Your task to perform on an android device: turn on the 24-hour format for clock Image 0: 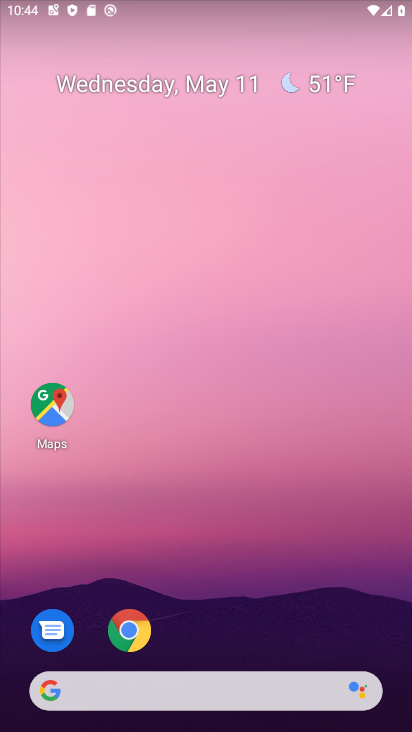
Step 0: drag from (220, 723) to (231, 38)
Your task to perform on an android device: turn on the 24-hour format for clock Image 1: 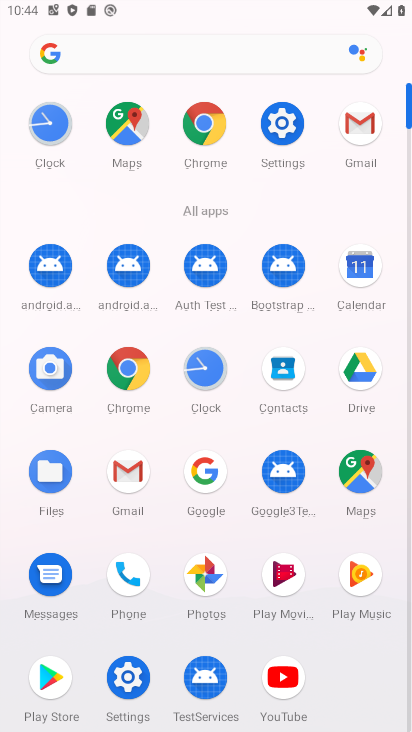
Step 1: click (206, 366)
Your task to perform on an android device: turn on the 24-hour format for clock Image 2: 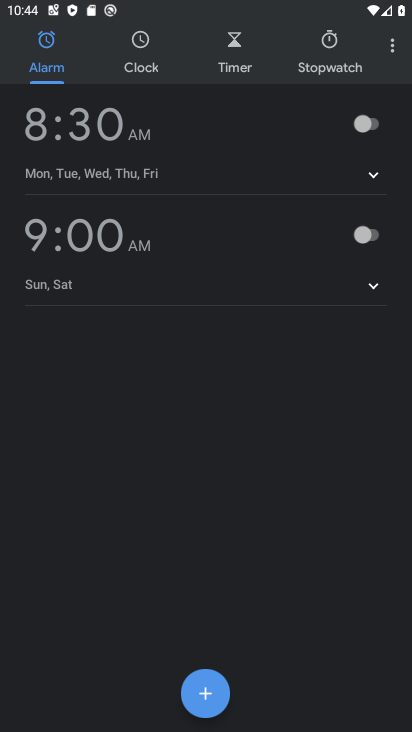
Step 2: click (393, 47)
Your task to perform on an android device: turn on the 24-hour format for clock Image 3: 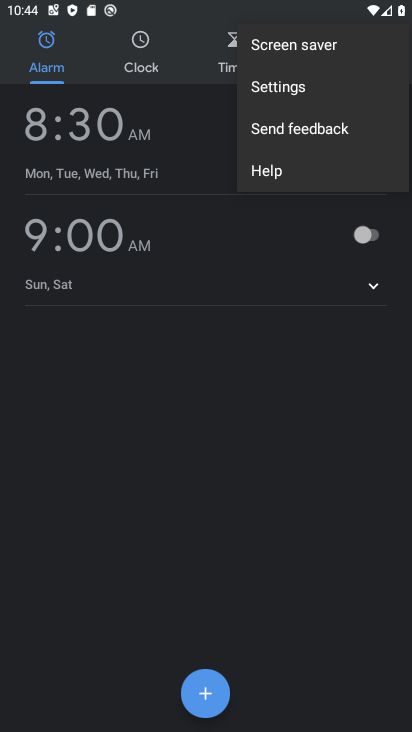
Step 3: click (278, 89)
Your task to perform on an android device: turn on the 24-hour format for clock Image 4: 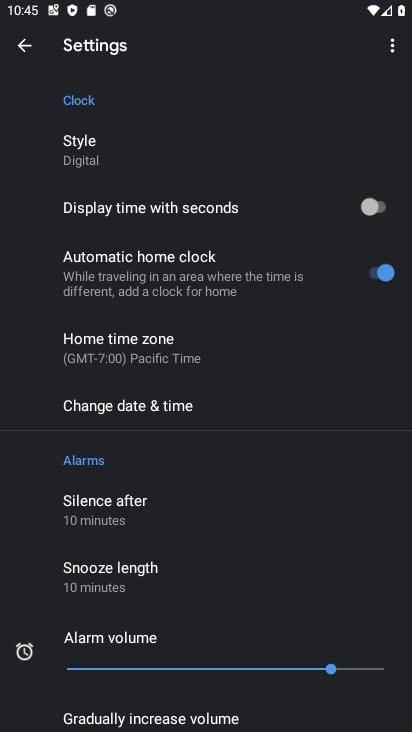
Step 4: click (133, 407)
Your task to perform on an android device: turn on the 24-hour format for clock Image 5: 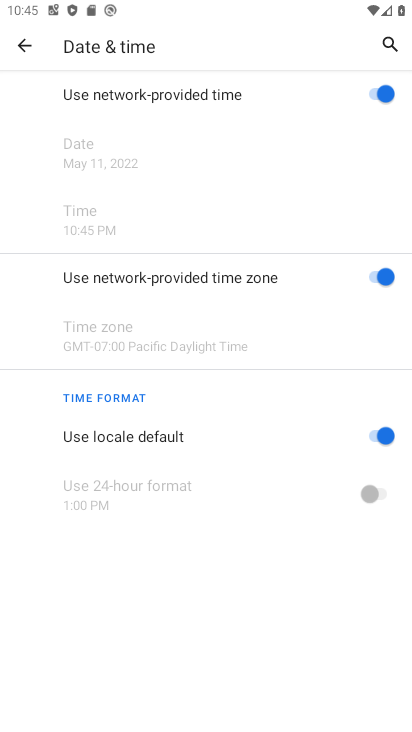
Step 5: click (375, 427)
Your task to perform on an android device: turn on the 24-hour format for clock Image 6: 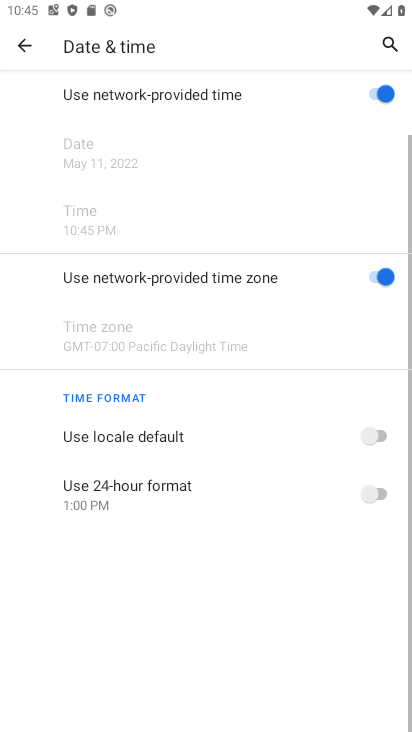
Step 6: click (381, 490)
Your task to perform on an android device: turn on the 24-hour format for clock Image 7: 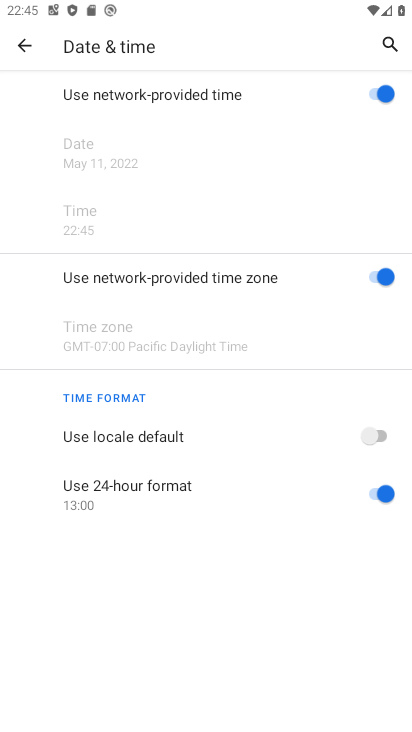
Step 7: task complete